Your task to perform on an android device: turn off improve location accuracy Image 0: 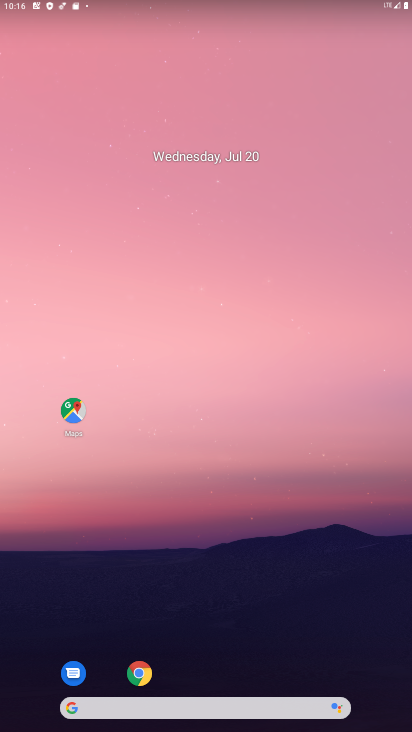
Step 0: drag from (192, 705) to (155, 202)
Your task to perform on an android device: turn off improve location accuracy Image 1: 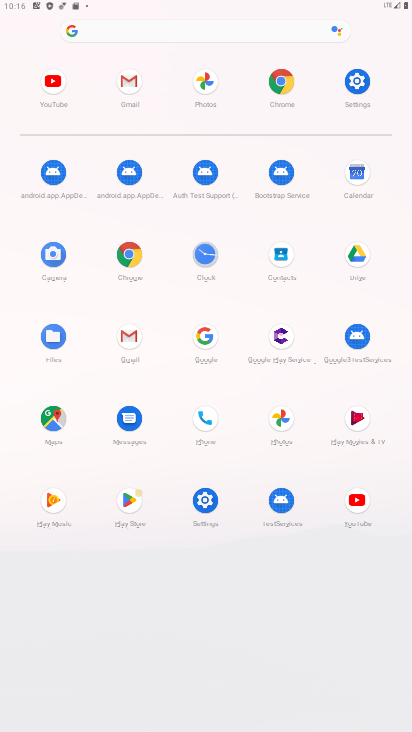
Step 1: click (206, 500)
Your task to perform on an android device: turn off improve location accuracy Image 2: 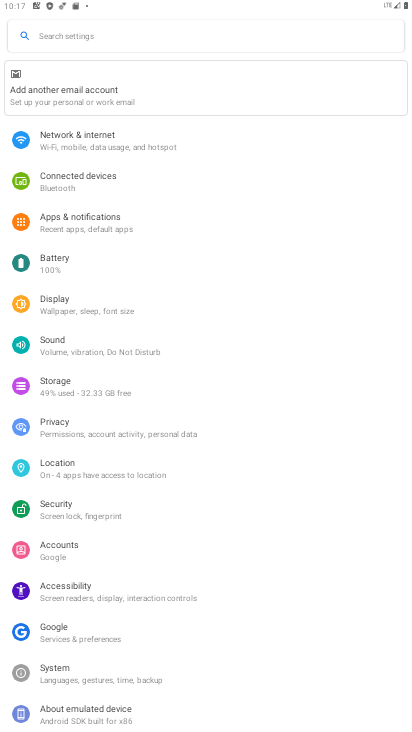
Step 2: click (86, 471)
Your task to perform on an android device: turn off improve location accuracy Image 3: 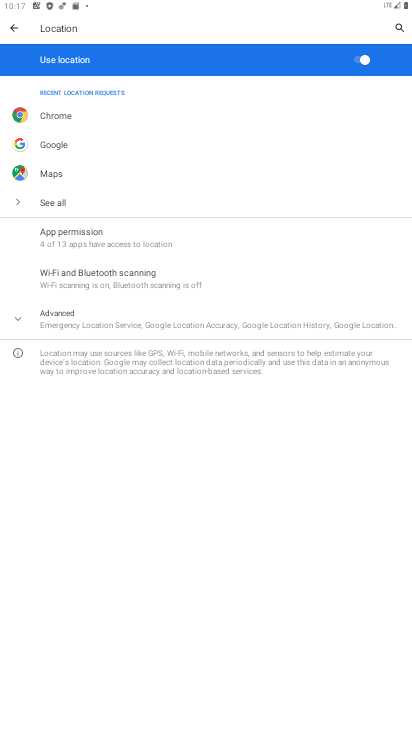
Step 3: click (141, 317)
Your task to perform on an android device: turn off improve location accuracy Image 4: 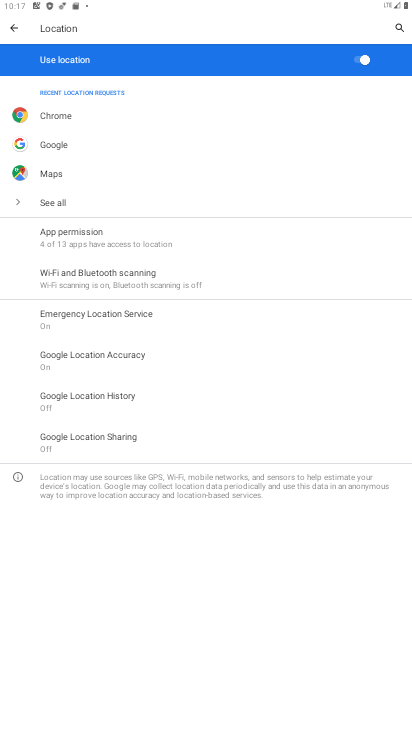
Step 4: click (126, 357)
Your task to perform on an android device: turn off improve location accuracy Image 5: 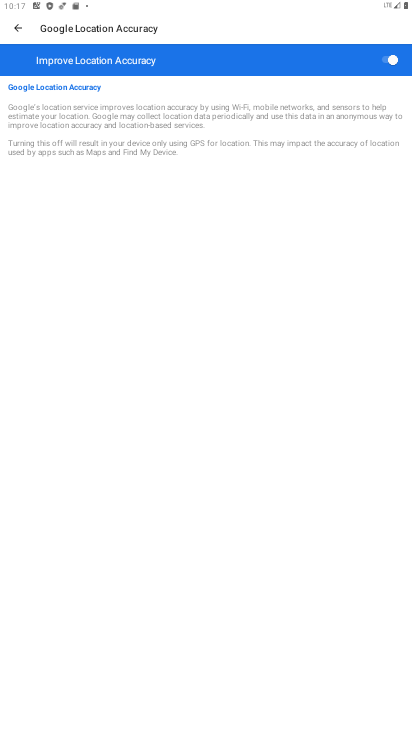
Step 5: click (390, 61)
Your task to perform on an android device: turn off improve location accuracy Image 6: 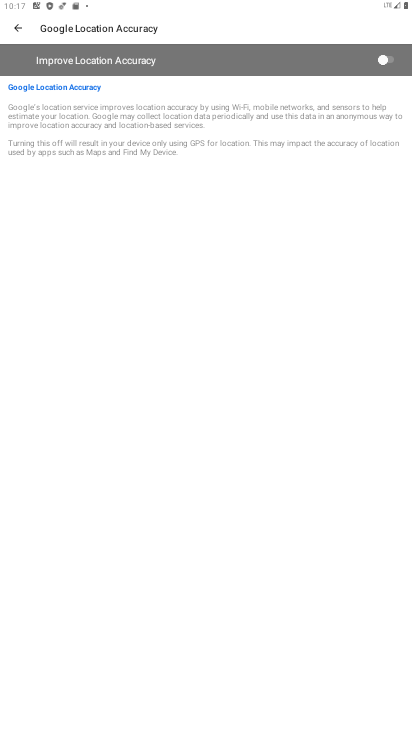
Step 6: task complete